Your task to perform on an android device: change the clock style Image 0: 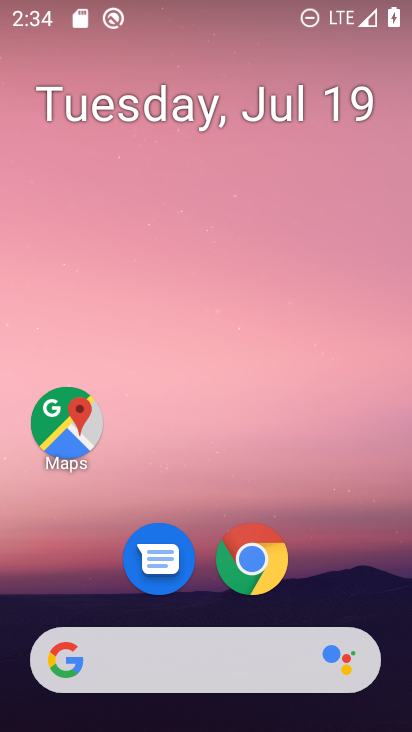
Step 0: drag from (374, 568) to (355, 8)
Your task to perform on an android device: change the clock style Image 1: 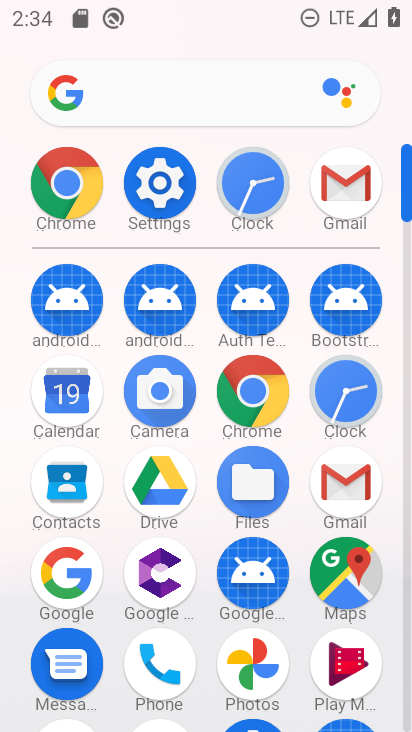
Step 1: click (351, 403)
Your task to perform on an android device: change the clock style Image 2: 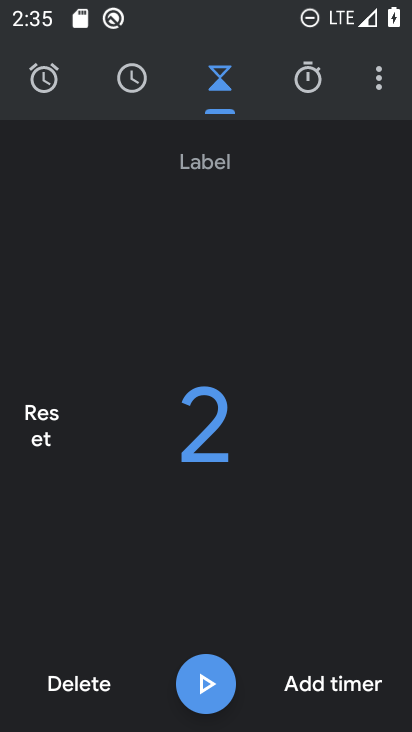
Step 2: click (374, 84)
Your task to perform on an android device: change the clock style Image 3: 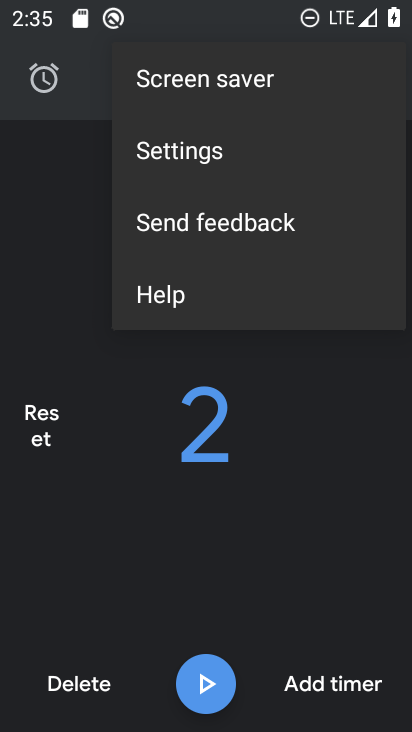
Step 3: click (251, 137)
Your task to perform on an android device: change the clock style Image 4: 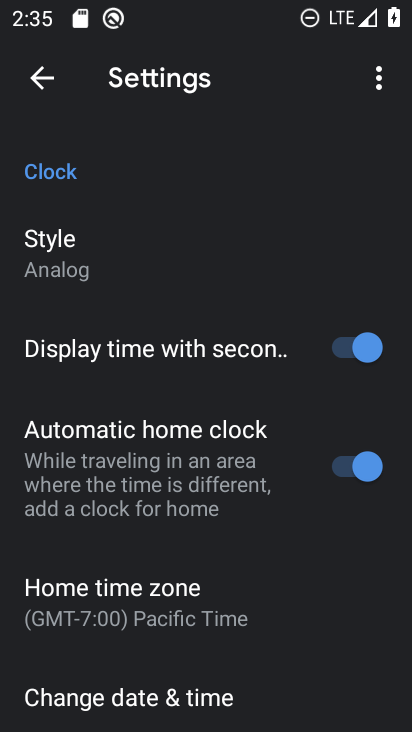
Step 4: click (92, 255)
Your task to perform on an android device: change the clock style Image 5: 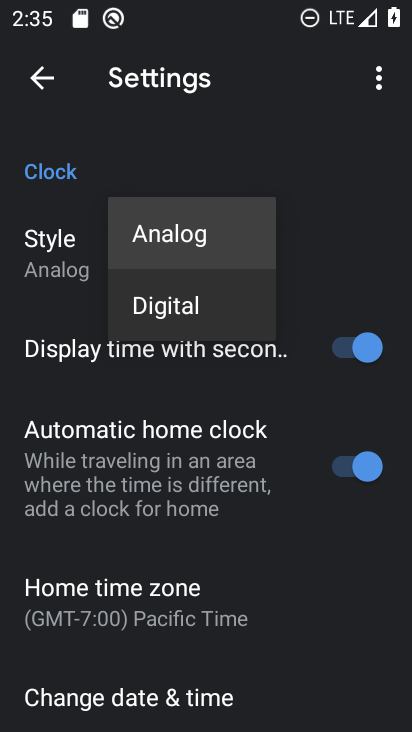
Step 5: click (221, 297)
Your task to perform on an android device: change the clock style Image 6: 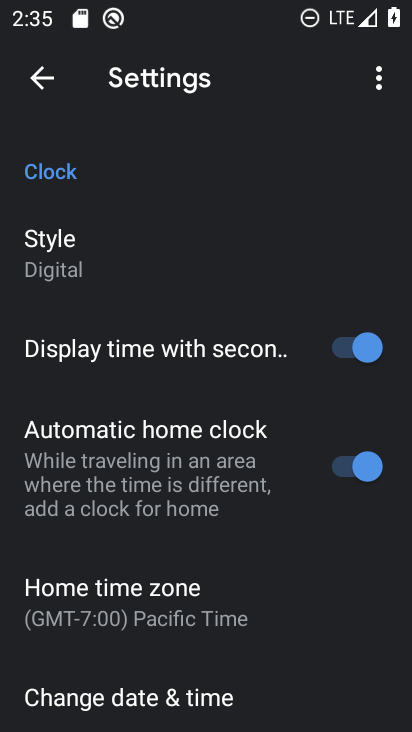
Step 6: task complete